Your task to perform on an android device: Check the news Image 0: 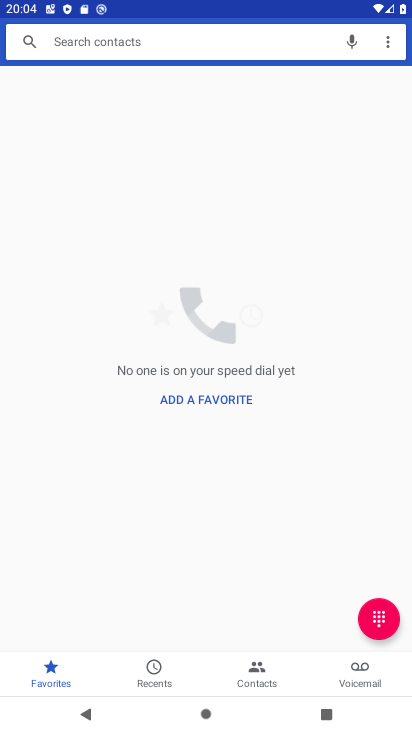
Step 0: press home button
Your task to perform on an android device: Check the news Image 1: 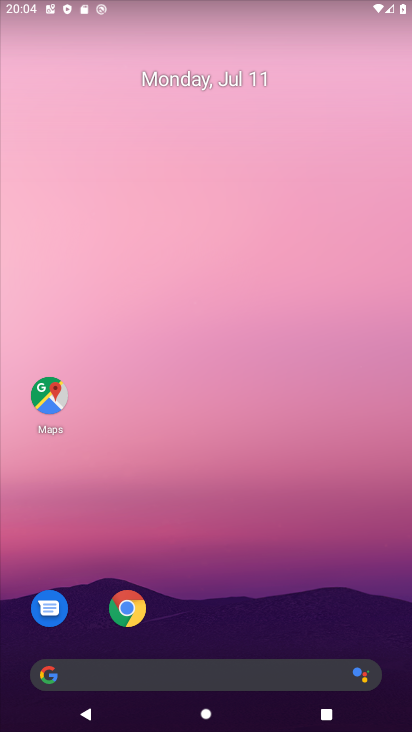
Step 1: click (245, 674)
Your task to perform on an android device: Check the news Image 2: 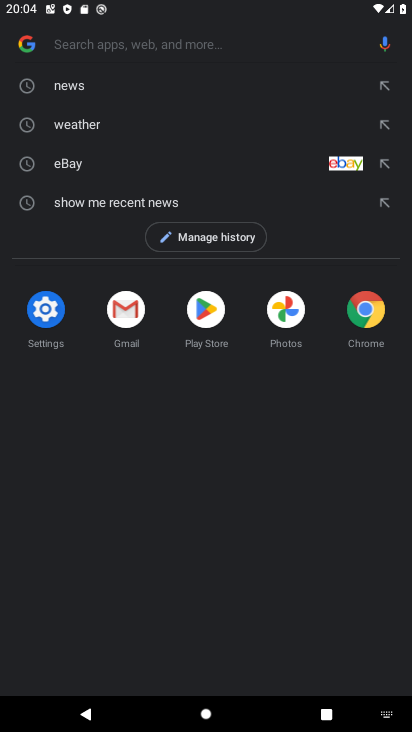
Step 2: click (78, 77)
Your task to perform on an android device: Check the news Image 3: 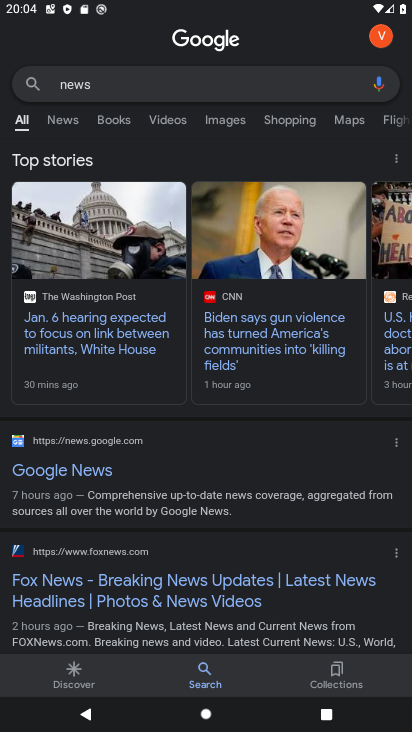
Step 3: task complete